Your task to perform on an android device: check data usage Image 0: 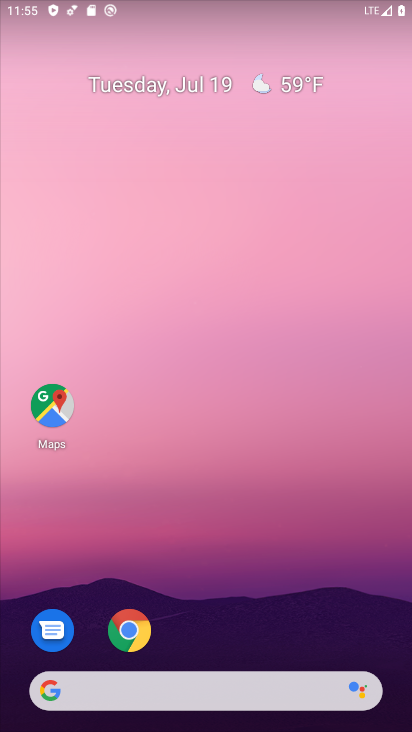
Step 0: drag from (164, 680) to (172, 202)
Your task to perform on an android device: check data usage Image 1: 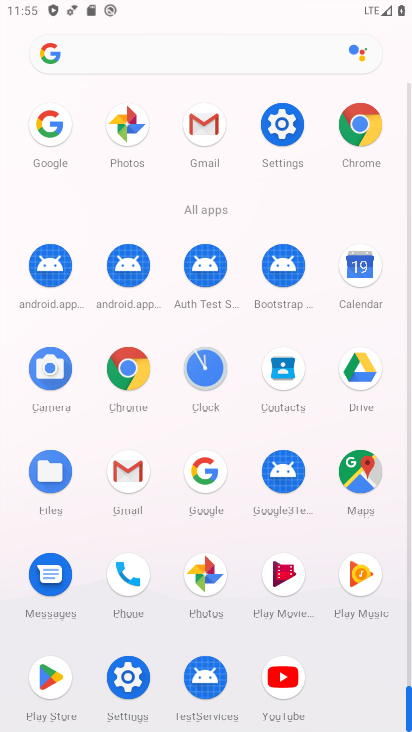
Step 1: click (352, 134)
Your task to perform on an android device: check data usage Image 2: 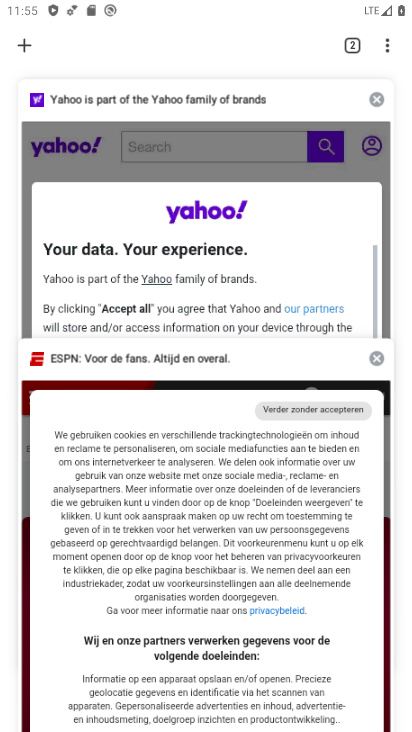
Step 2: click (384, 59)
Your task to perform on an android device: check data usage Image 3: 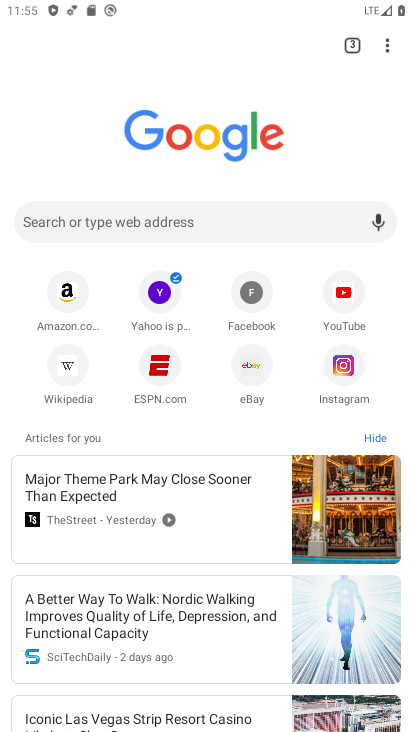
Step 3: click (384, 59)
Your task to perform on an android device: check data usage Image 4: 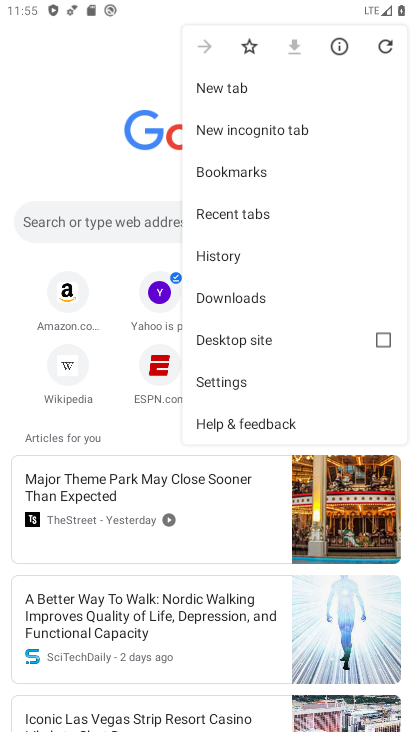
Step 4: press home button
Your task to perform on an android device: check data usage Image 5: 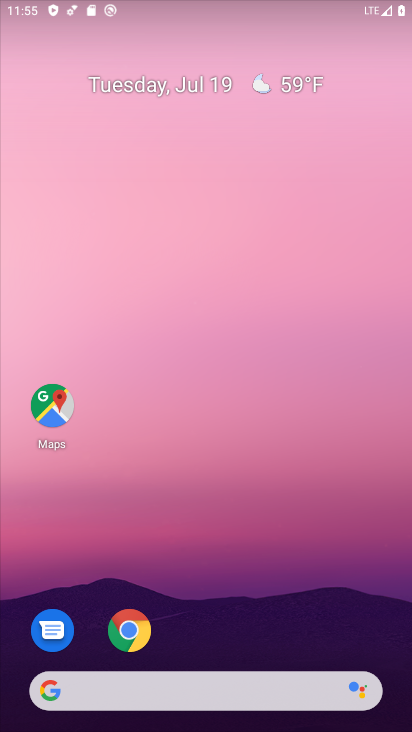
Step 5: drag from (90, 651) to (160, 128)
Your task to perform on an android device: check data usage Image 6: 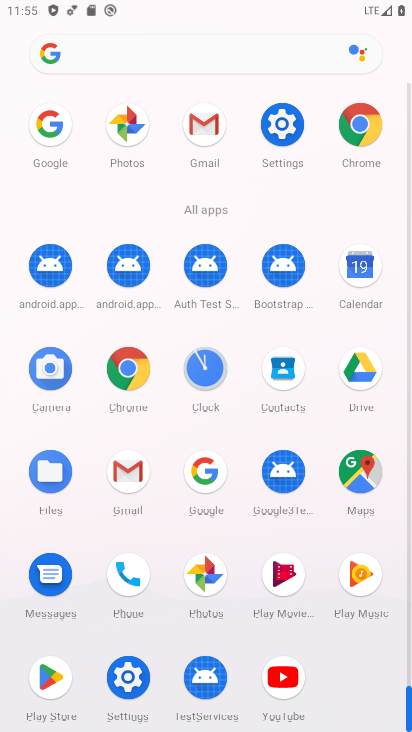
Step 6: click (273, 138)
Your task to perform on an android device: check data usage Image 7: 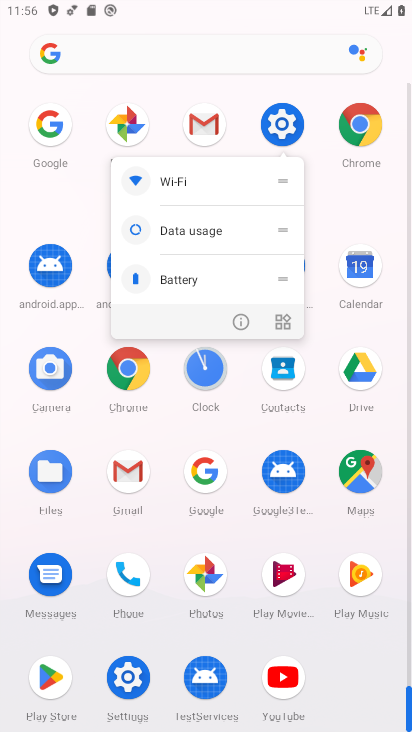
Step 7: click (287, 119)
Your task to perform on an android device: check data usage Image 8: 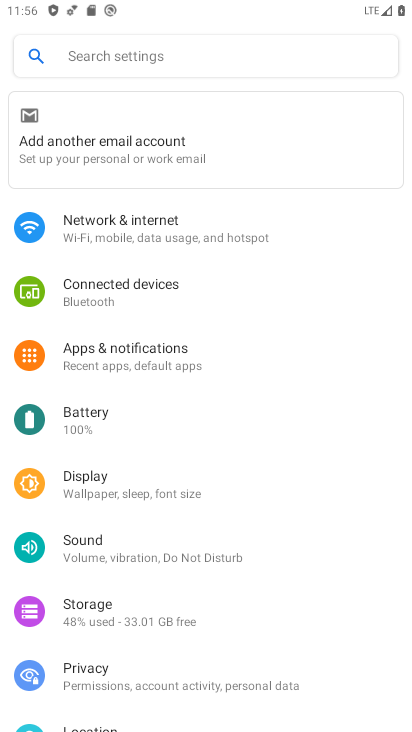
Step 8: click (172, 234)
Your task to perform on an android device: check data usage Image 9: 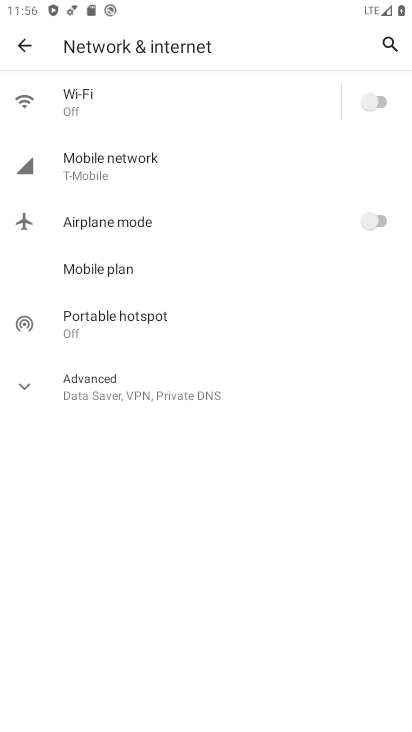
Step 9: click (133, 173)
Your task to perform on an android device: check data usage Image 10: 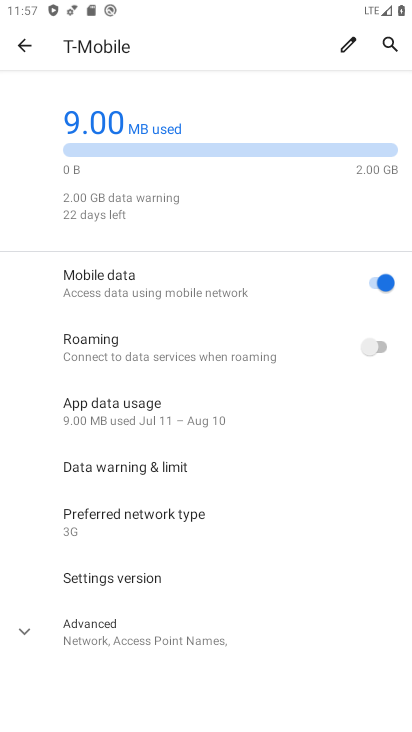
Step 10: click (177, 409)
Your task to perform on an android device: check data usage Image 11: 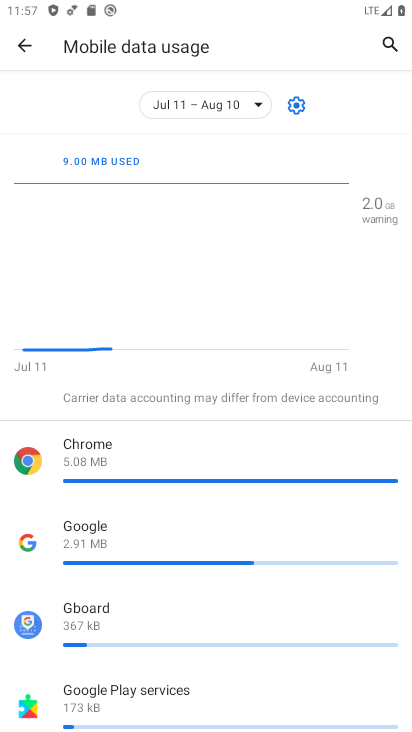
Step 11: task complete